Your task to perform on an android device: turn off notifications settings in the gmail app Image 0: 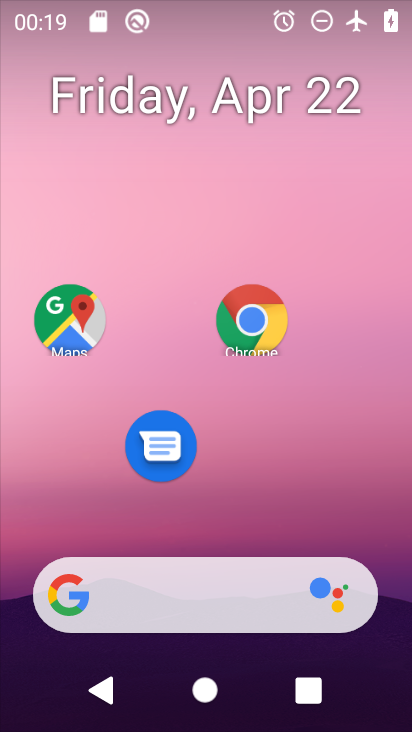
Step 0: drag from (213, 465) to (226, 137)
Your task to perform on an android device: turn off notifications settings in the gmail app Image 1: 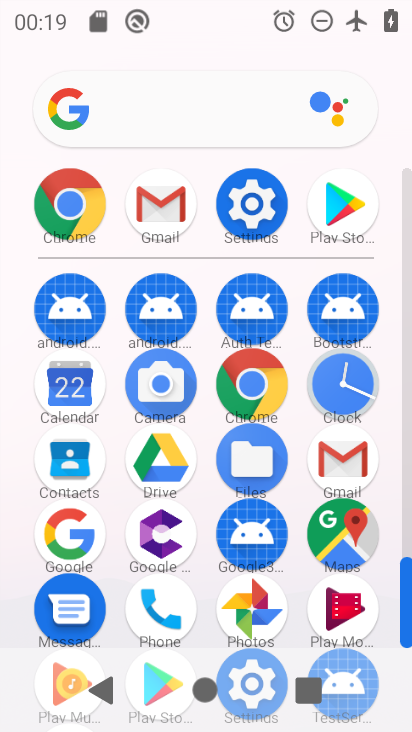
Step 1: click (347, 458)
Your task to perform on an android device: turn off notifications settings in the gmail app Image 2: 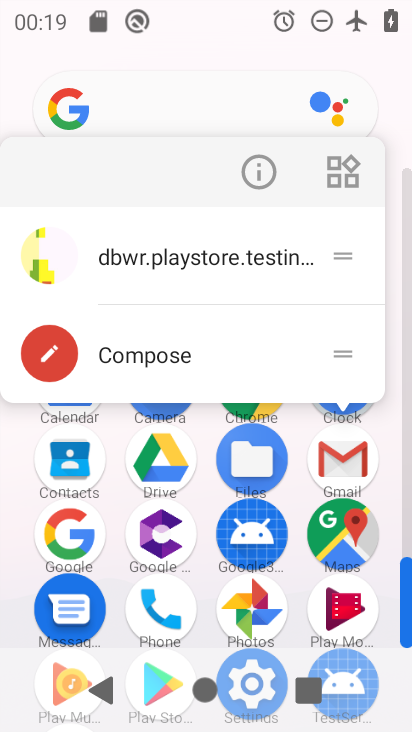
Step 2: click (272, 173)
Your task to perform on an android device: turn off notifications settings in the gmail app Image 3: 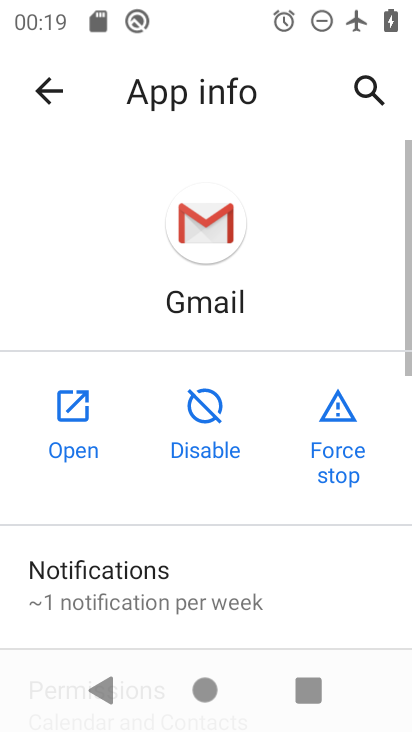
Step 3: click (54, 409)
Your task to perform on an android device: turn off notifications settings in the gmail app Image 4: 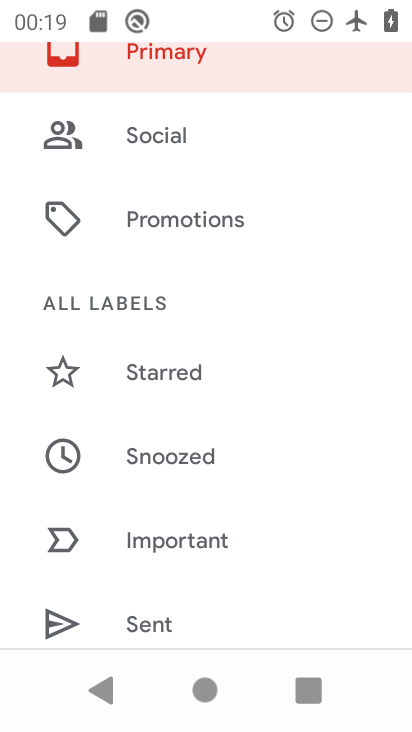
Step 4: drag from (225, 605) to (261, 345)
Your task to perform on an android device: turn off notifications settings in the gmail app Image 5: 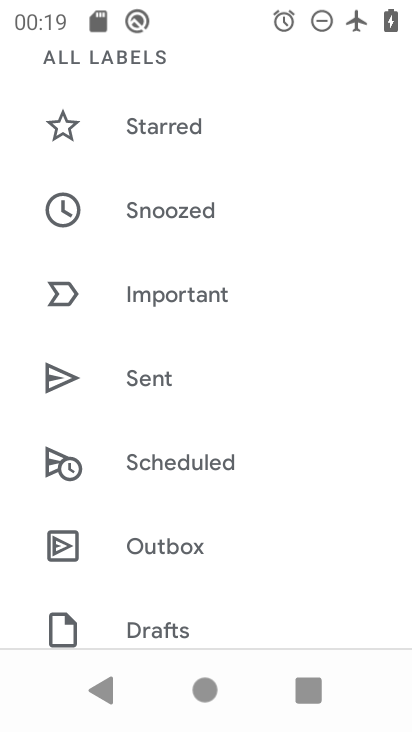
Step 5: drag from (226, 566) to (231, 219)
Your task to perform on an android device: turn off notifications settings in the gmail app Image 6: 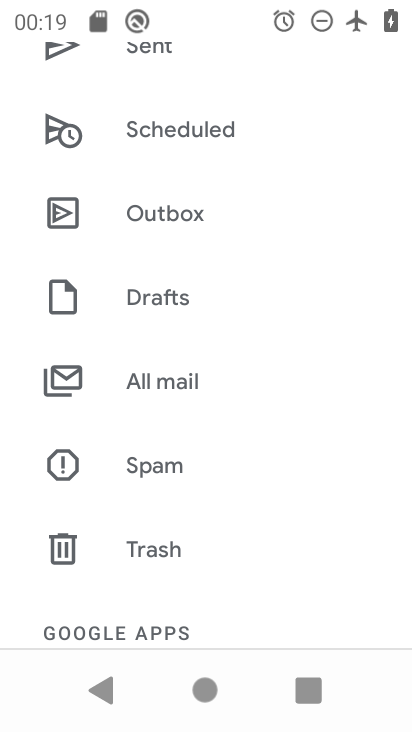
Step 6: drag from (229, 547) to (233, 207)
Your task to perform on an android device: turn off notifications settings in the gmail app Image 7: 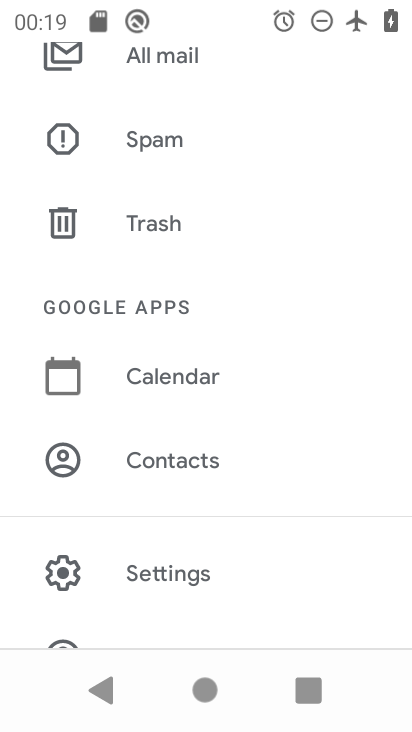
Step 7: drag from (203, 532) to (218, 239)
Your task to perform on an android device: turn off notifications settings in the gmail app Image 8: 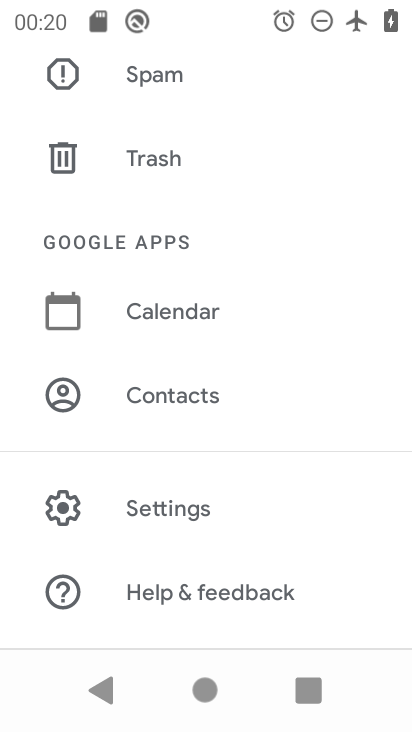
Step 8: click (190, 508)
Your task to perform on an android device: turn off notifications settings in the gmail app Image 9: 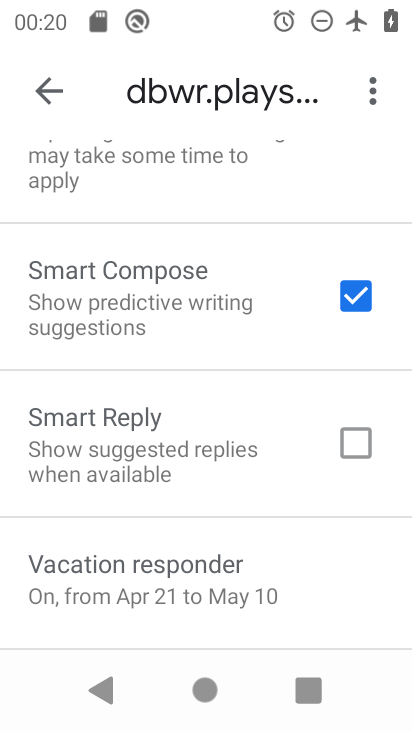
Step 9: drag from (282, 585) to (340, 141)
Your task to perform on an android device: turn off notifications settings in the gmail app Image 10: 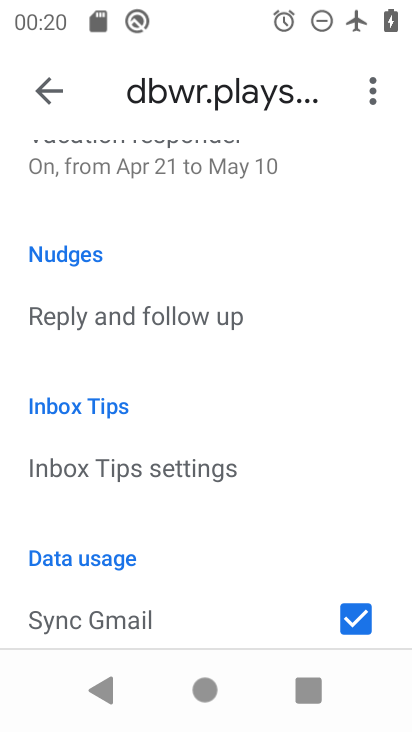
Step 10: drag from (225, 191) to (334, 730)
Your task to perform on an android device: turn off notifications settings in the gmail app Image 11: 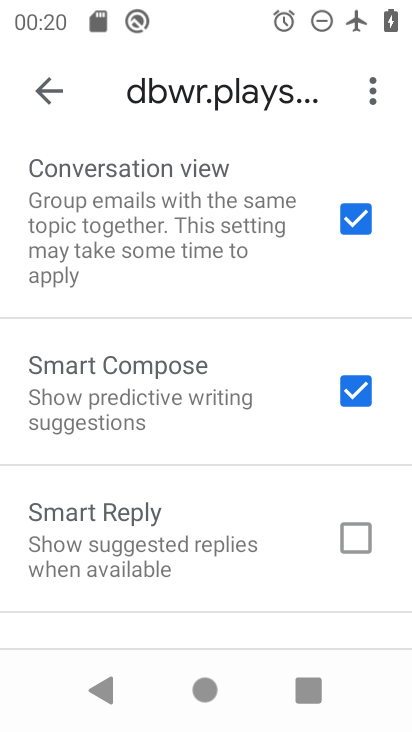
Step 11: drag from (204, 238) to (273, 729)
Your task to perform on an android device: turn off notifications settings in the gmail app Image 12: 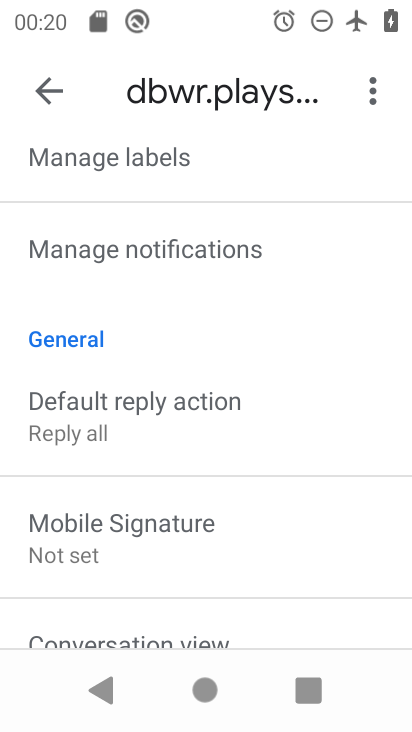
Step 12: click (159, 250)
Your task to perform on an android device: turn off notifications settings in the gmail app Image 13: 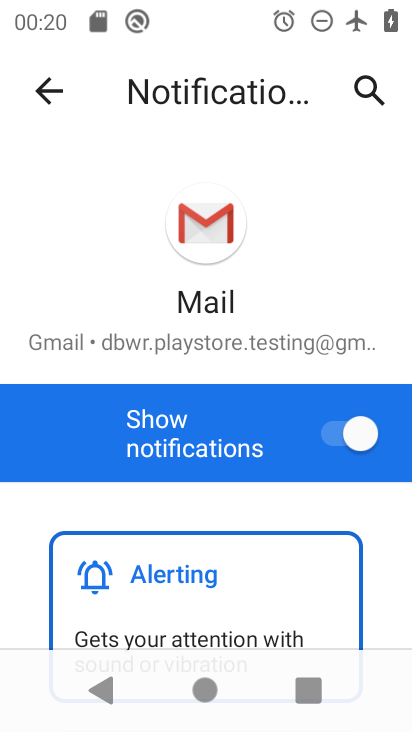
Step 13: drag from (204, 581) to (318, 104)
Your task to perform on an android device: turn off notifications settings in the gmail app Image 14: 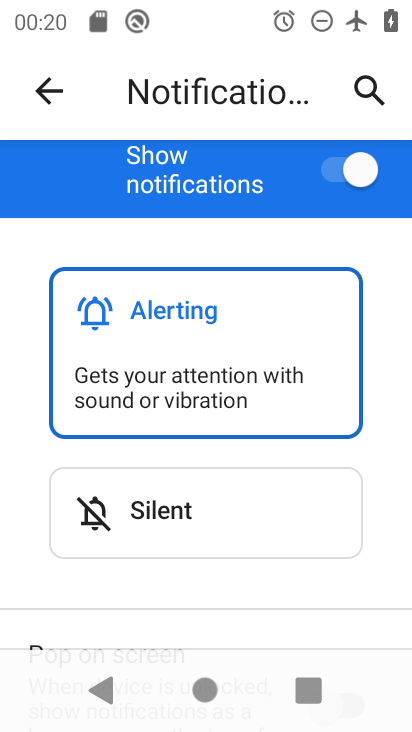
Step 14: drag from (207, 557) to (331, 37)
Your task to perform on an android device: turn off notifications settings in the gmail app Image 15: 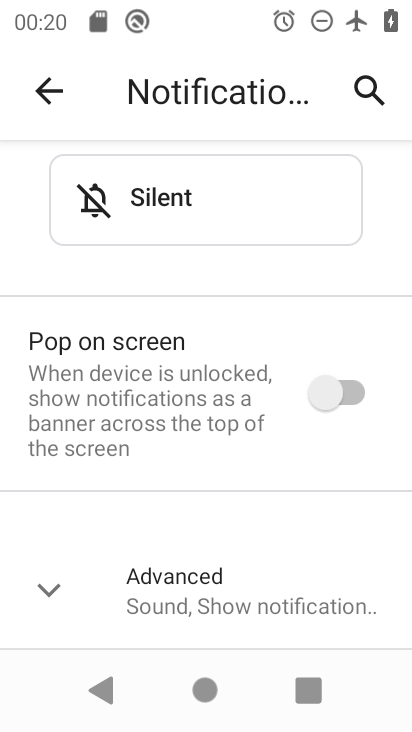
Step 15: drag from (201, 270) to (195, 604)
Your task to perform on an android device: turn off notifications settings in the gmail app Image 16: 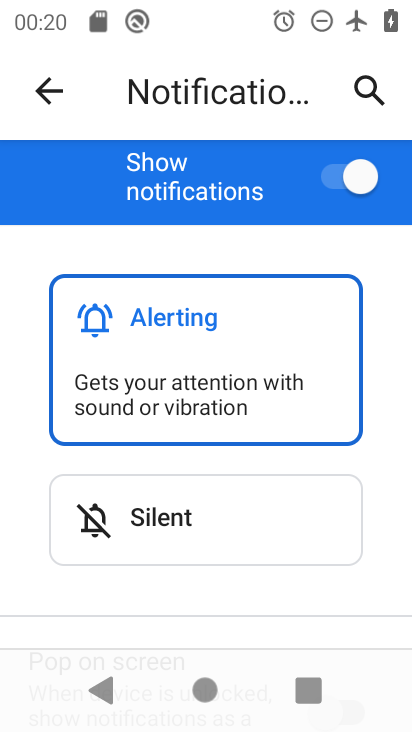
Step 16: drag from (222, 167) to (257, 695)
Your task to perform on an android device: turn off notifications settings in the gmail app Image 17: 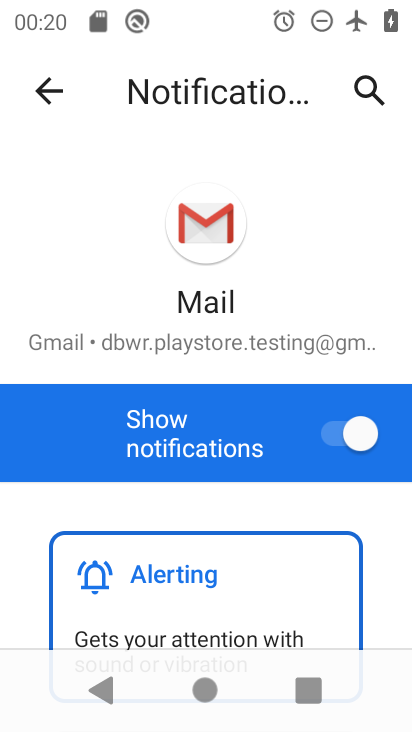
Step 17: click (331, 424)
Your task to perform on an android device: turn off notifications settings in the gmail app Image 18: 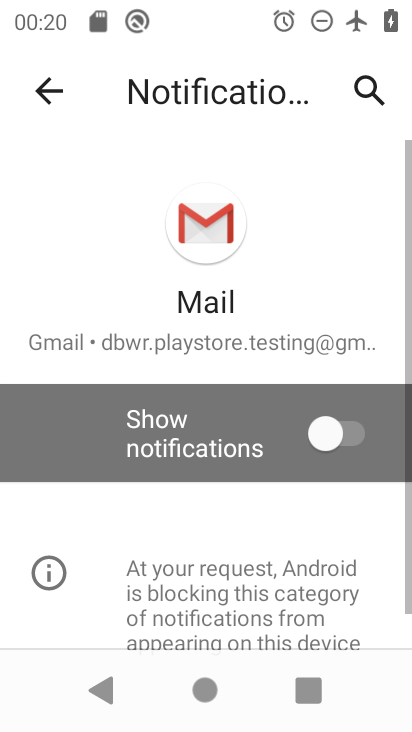
Step 18: task complete